Your task to perform on an android device: Show me productivity apps on the Play Store Image 0: 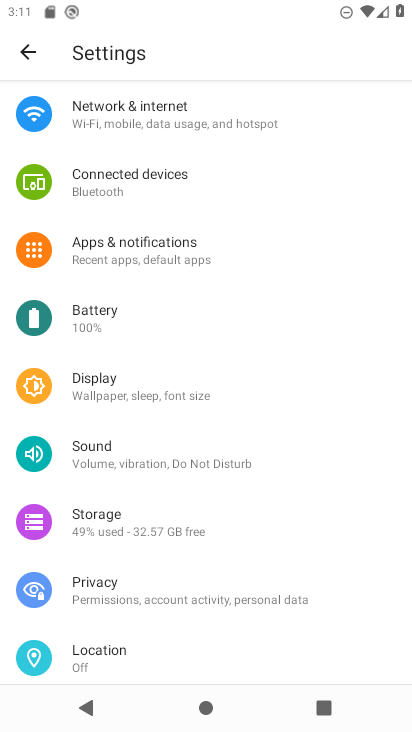
Step 0: press home button
Your task to perform on an android device: Show me productivity apps on the Play Store Image 1: 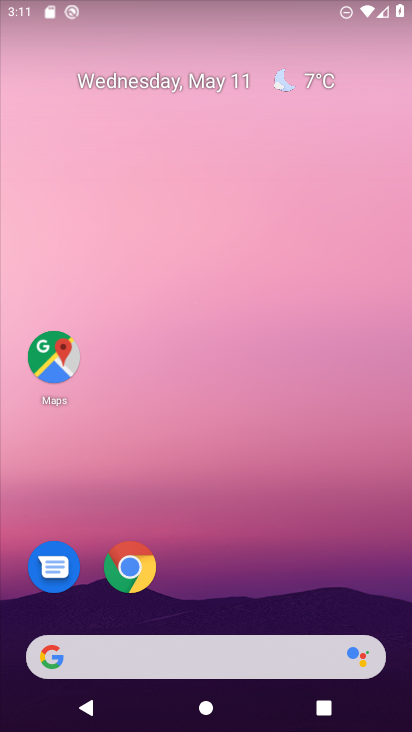
Step 1: drag from (336, 550) to (247, 174)
Your task to perform on an android device: Show me productivity apps on the Play Store Image 2: 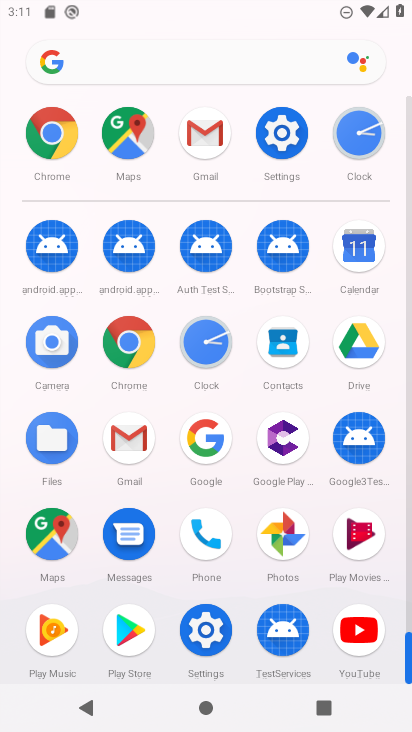
Step 2: click (139, 630)
Your task to perform on an android device: Show me productivity apps on the Play Store Image 3: 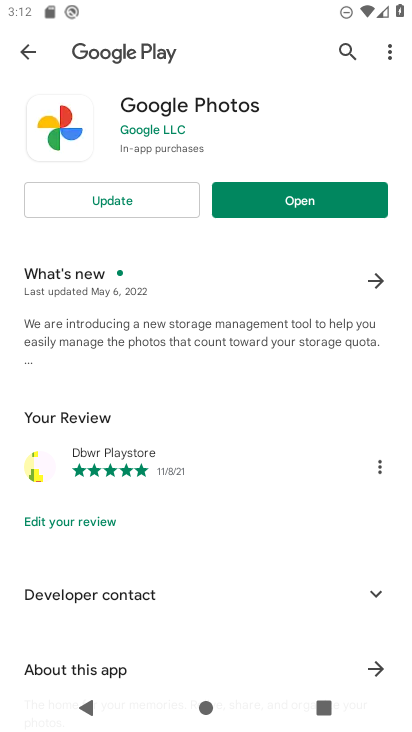
Step 3: click (24, 50)
Your task to perform on an android device: Show me productivity apps on the Play Store Image 4: 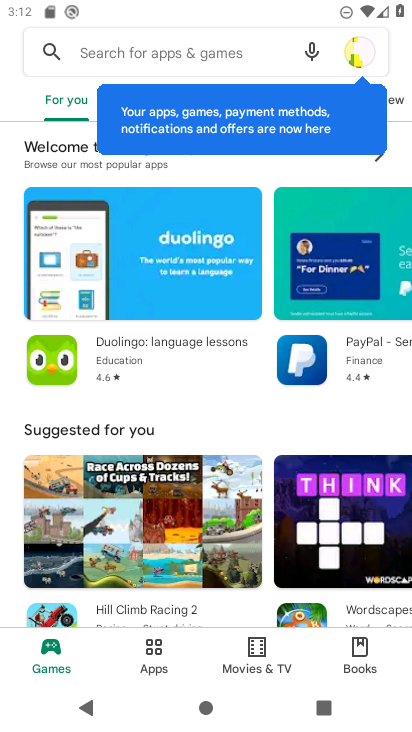
Step 4: click (160, 650)
Your task to perform on an android device: Show me productivity apps on the Play Store Image 5: 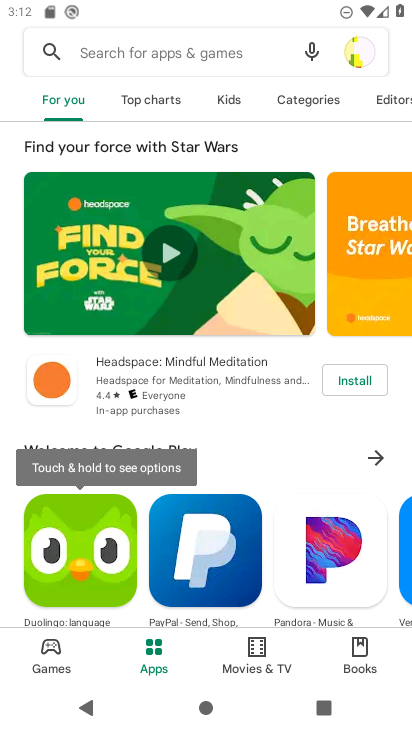
Step 5: click (310, 97)
Your task to perform on an android device: Show me productivity apps on the Play Store Image 6: 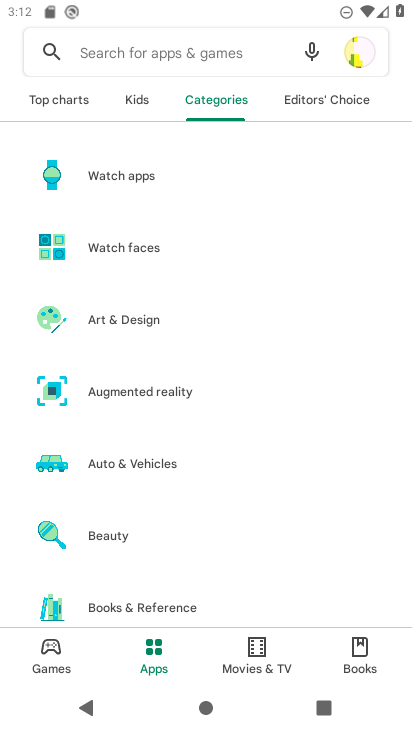
Step 6: drag from (281, 471) to (232, 257)
Your task to perform on an android device: Show me productivity apps on the Play Store Image 7: 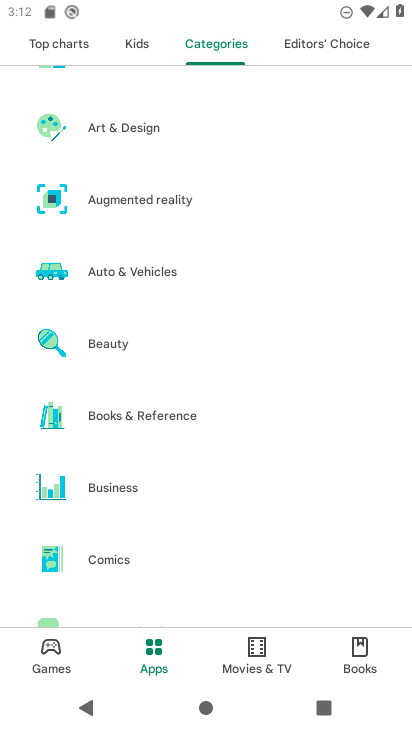
Step 7: drag from (252, 587) to (218, 346)
Your task to perform on an android device: Show me productivity apps on the Play Store Image 8: 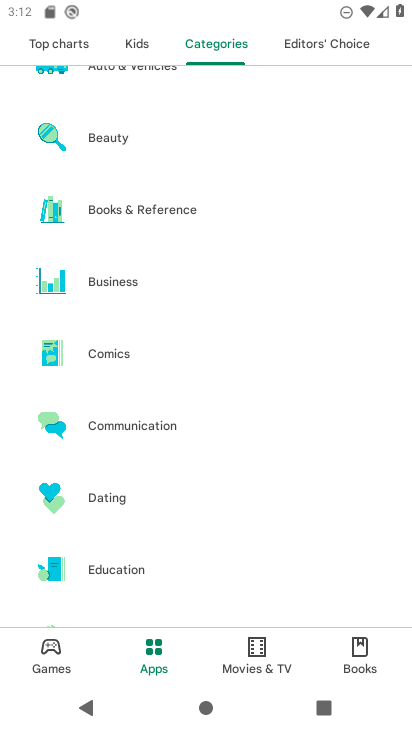
Step 8: drag from (240, 464) to (176, 230)
Your task to perform on an android device: Show me productivity apps on the Play Store Image 9: 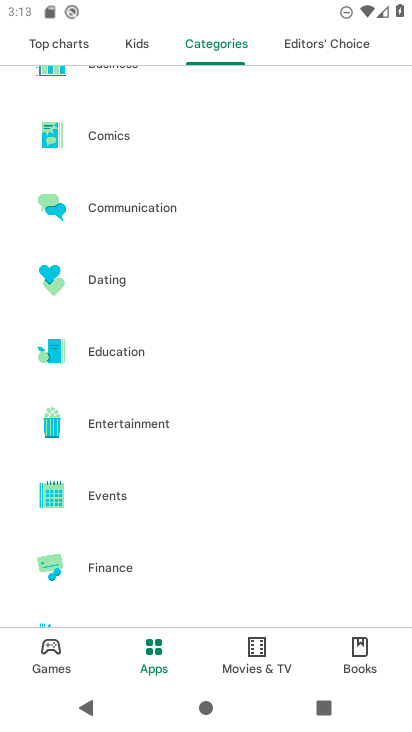
Step 9: drag from (214, 548) to (144, 222)
Your task to perform on an android device: Show me productivity apps on the Play Store Image 10: 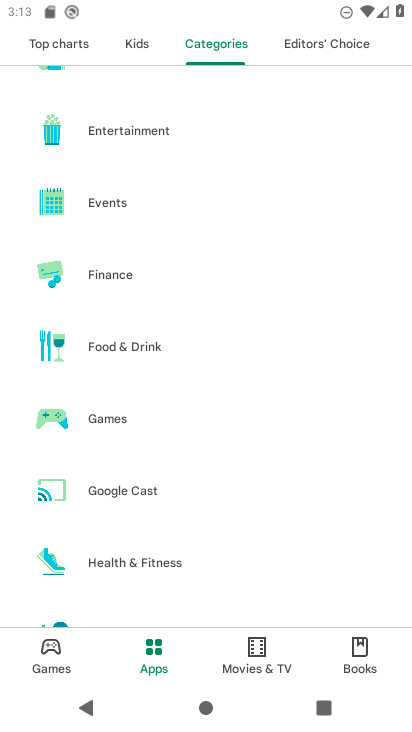
Step 10: drag from (253, 514) to (181, 269)
Your task to perform on an android device: Show me productivity apps on the Play Store Image 11: 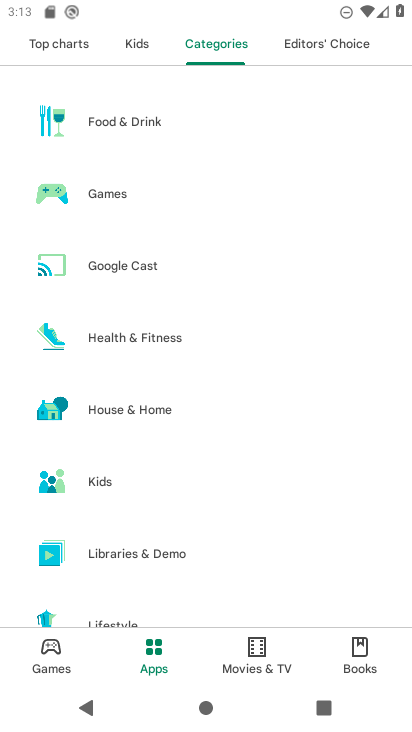
Step 11: drag from (231, 512) to (153, 95)
Your task to perform on an android device: Show me productivity apps on the Play Store Image 12: 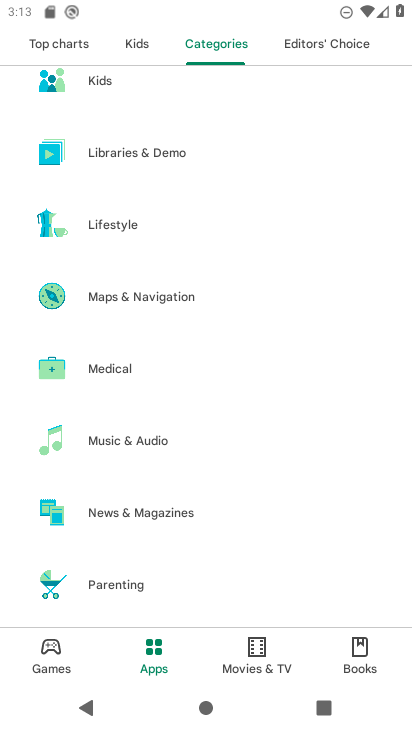
Step 12: drag from (231, 526) to (154, 302)
Your task to perform on an android device: Show me productivity apps on the Play Store Image 13: 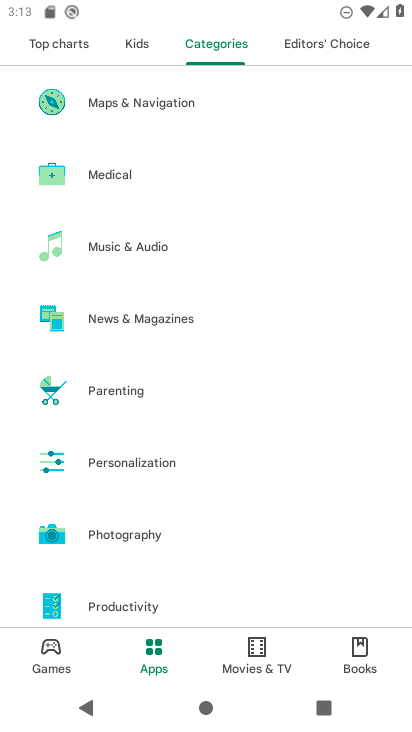
Step 13: click (162, 607)
Your task to perform on an android device: Show me productivity apps on the Play Store Image 14: 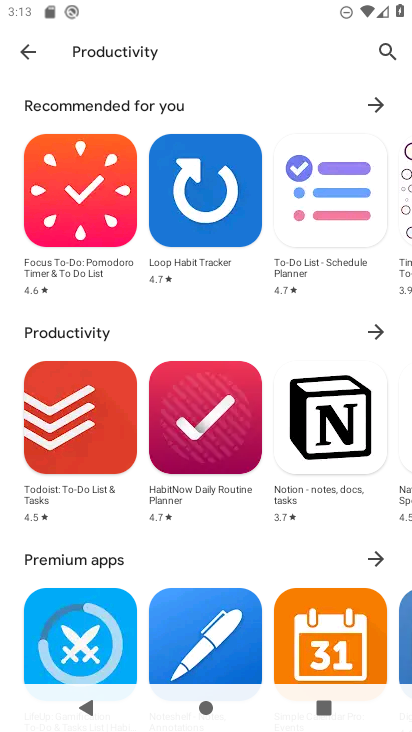
Step 14: task complete